Your task to perform on an android device: change your default location settings in chrome Image 0: 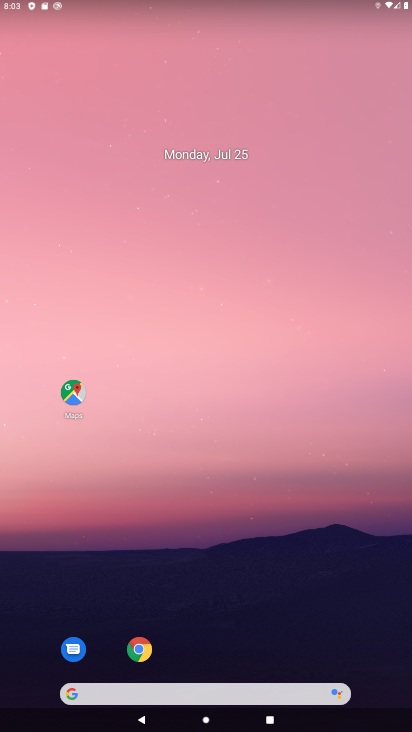
Step 0: click (194, 272)
Your task to perform on an android device: change your default location settings in chrome Image 1: 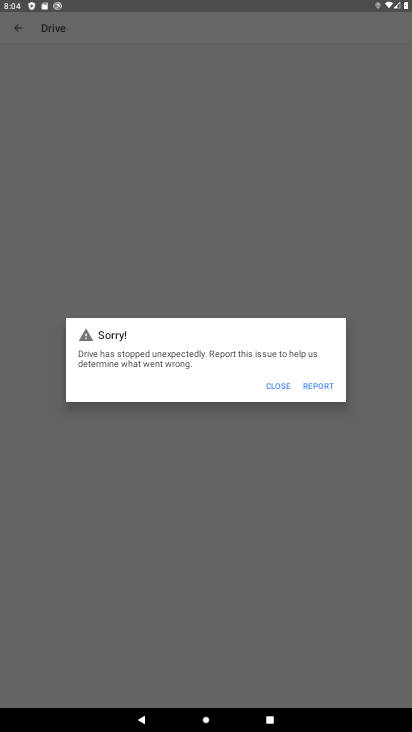
Step 1: press home button
Your task to perform on an android device: change your default location settings in chrome Image 2: 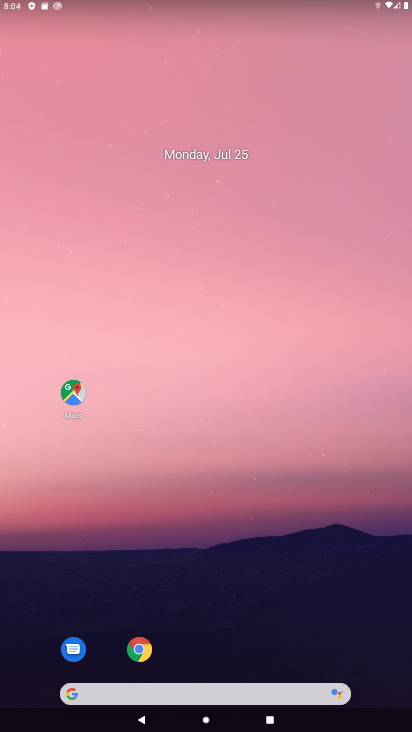
Step 2: click (150, 656)
Your task to perform on an android device: change your default location settings in chrome Image 3: 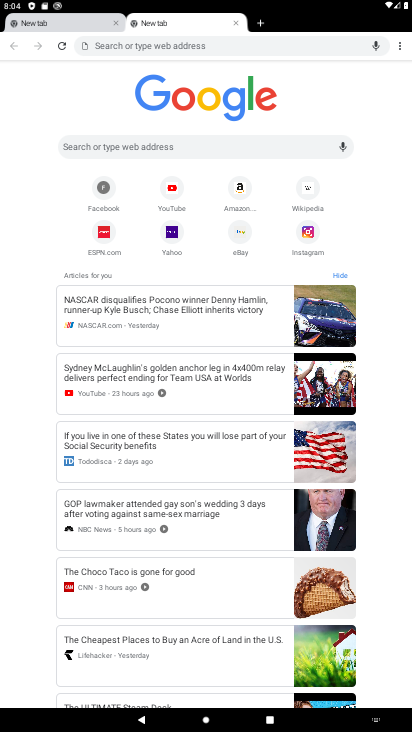
Step 3: click (402, 45)
Your task to perform on an android device: change your default location settings in chrome Image 4: 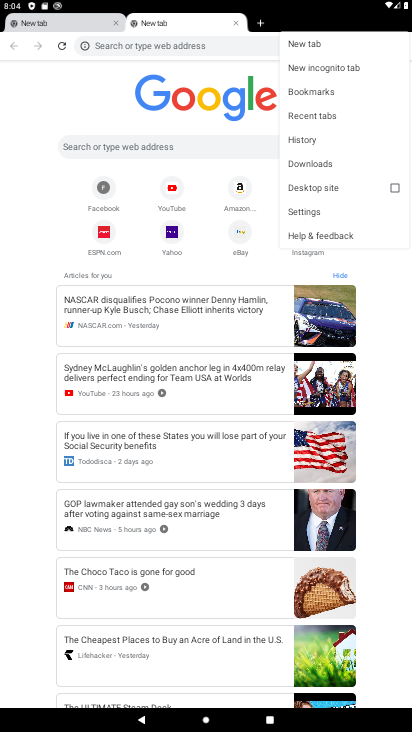
Step 4: click (323, 210)
Your task to perform on an android device: change your default location settings in chrome Image 5: 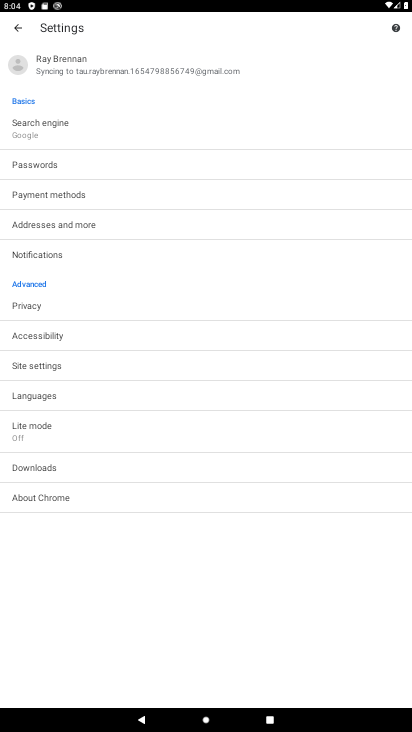
Step 5: click (75, 369)
Your task to perform on an android device: change your default location settings in chrome Image 6: 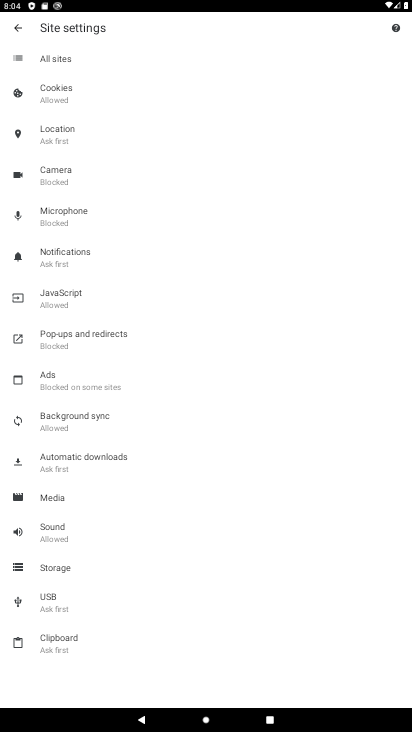
Step 6: drag from (74, 240) to (83, 399)
Your task to perform on an android device: change your default location settings in chrome Image 7: 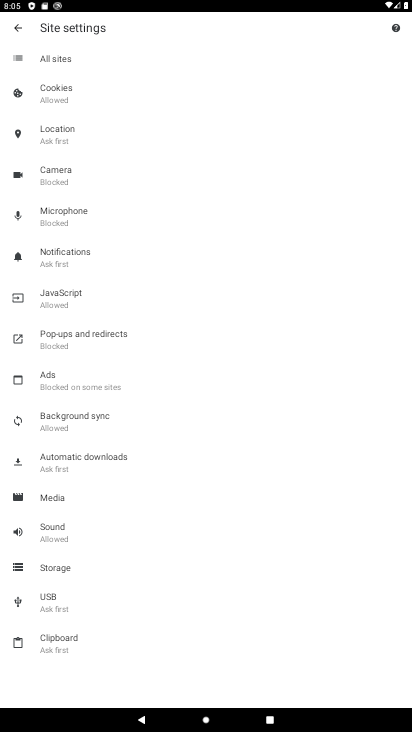
Step 7: click (56, 129)
Your task to perform on an android device: change your default location settings in chrome Image 8: 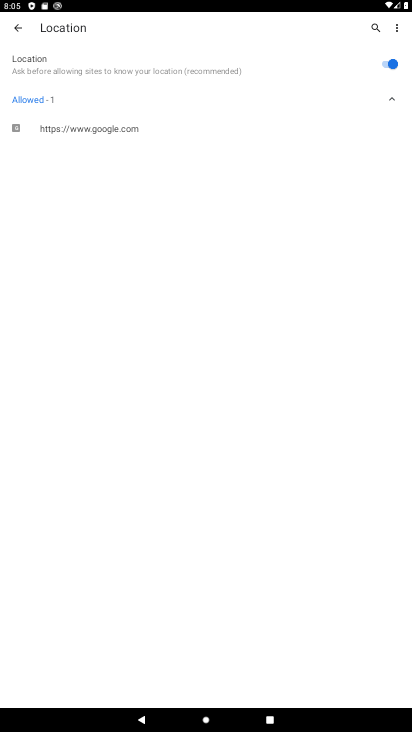
Step 8: click (65, 74)
Your task to perform on an android device: change your default location settings in chrome Image 9: 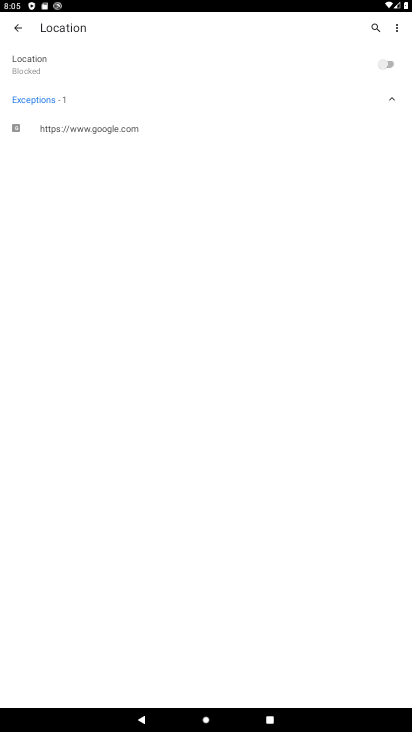
Step 9: task complete